Your task to perform on an android device: check google app version Image 0: 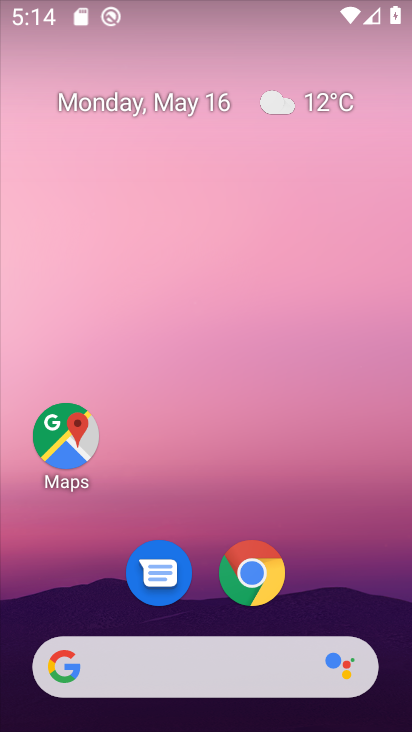
Step 0: drag from (232, 570) to (288, 53)
Your task to perform on an android device: check google app version Image 1: 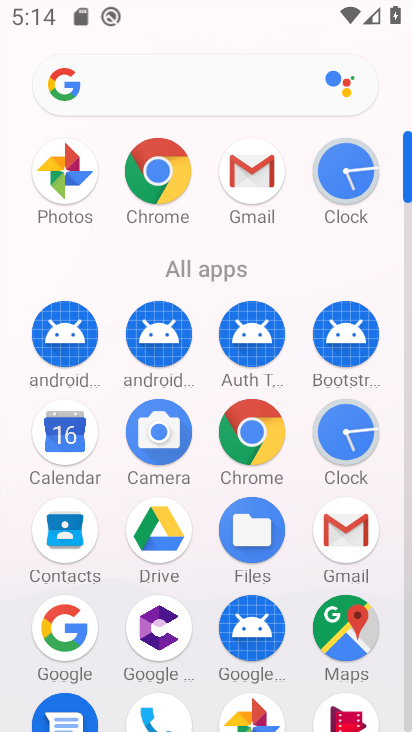
Step 1: click (89, 636)
Your task to perform on an android device: check google app version Image 2: 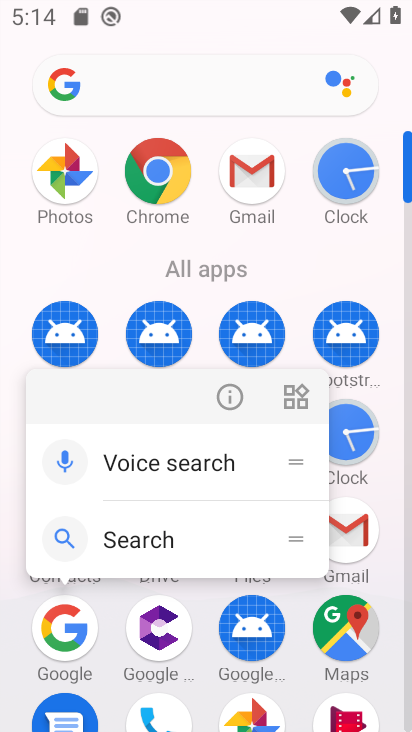
Step 2: click (235, 401)
Your task to perform on an android device: check google app version Image 3: 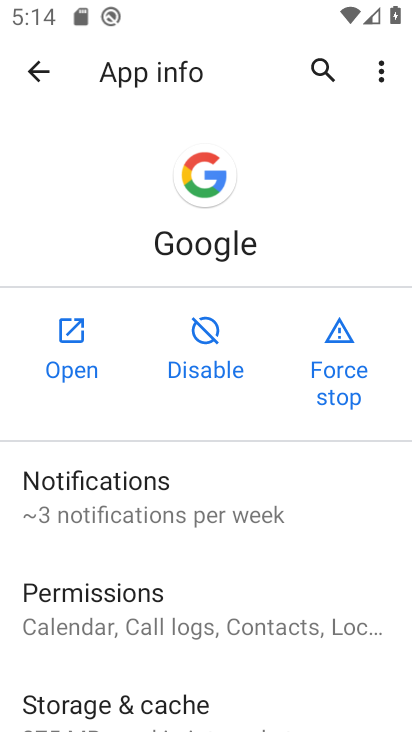
Step 3: drag from (173, 663) to (281, 121)
Your task to perform on an android device: check google app version Image 4: 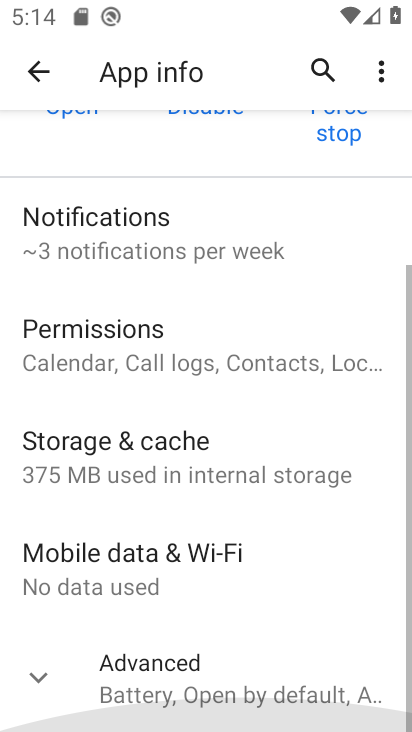
Step 4: drag from (137, 672) to (294, 26)
Your task to perform on an android device: check google app version Image 5: 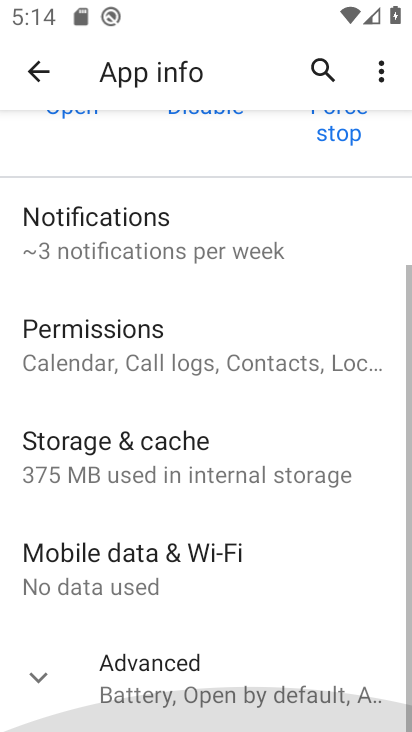
Step 5: click (184, 691)
Your task to perform on an android device: check google app version Image 6: 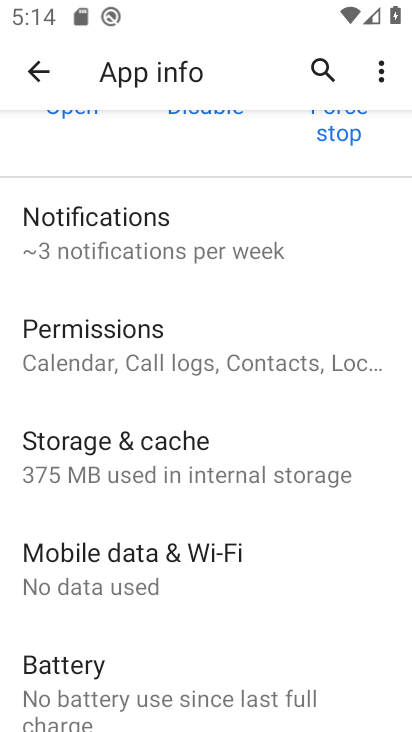
Step 6: task complete